Your task to perform on an android device: Show me popular videos on Youtube Image 0: 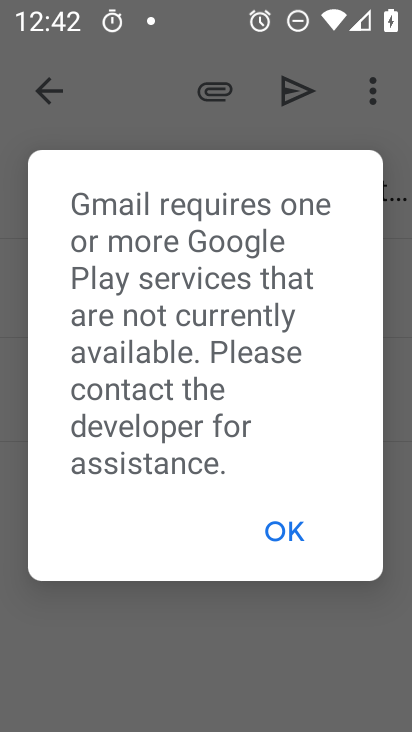
Step 0: press home button
Your task to perform on an android device: Show me popular videos on Youtube Image 1: 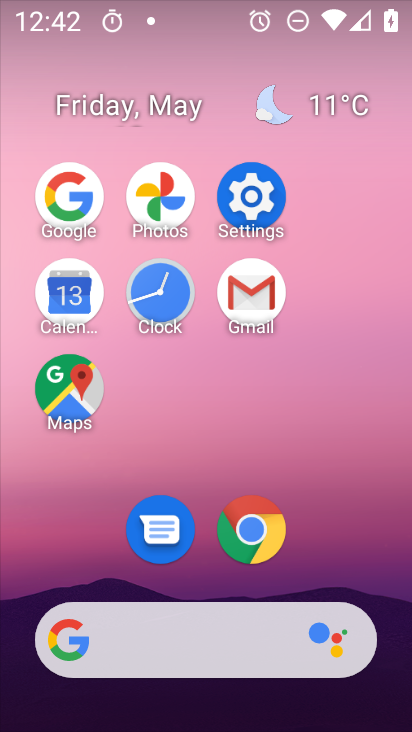
Step 1: drag from (222, 495) to (281, 177)
Your task to perform on an android device: Show me popular videos on Youtube Image 2: 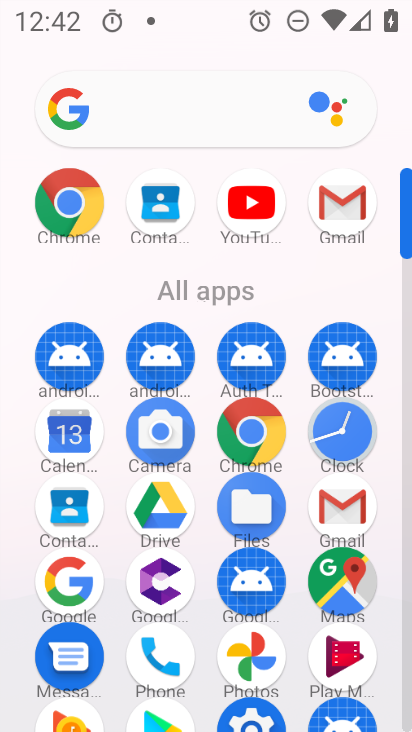
Step 2: click (270, 203)
Your task to perform on an android device: Show me popular videos on Youtube Image 3: 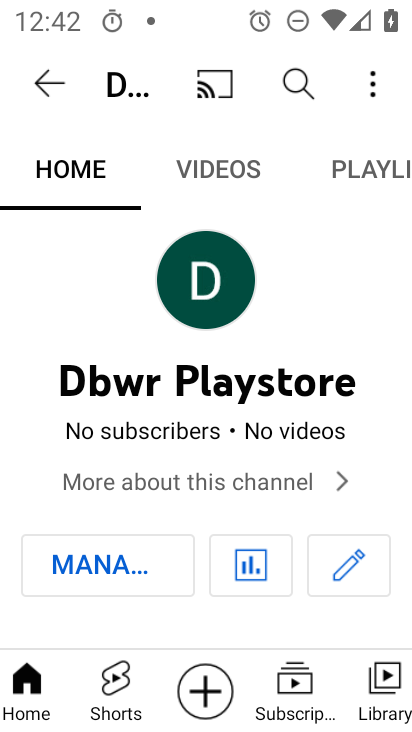
Step 3: press back button
Your task to perform on an android device: Show me popular videos on Youtube Image 4: 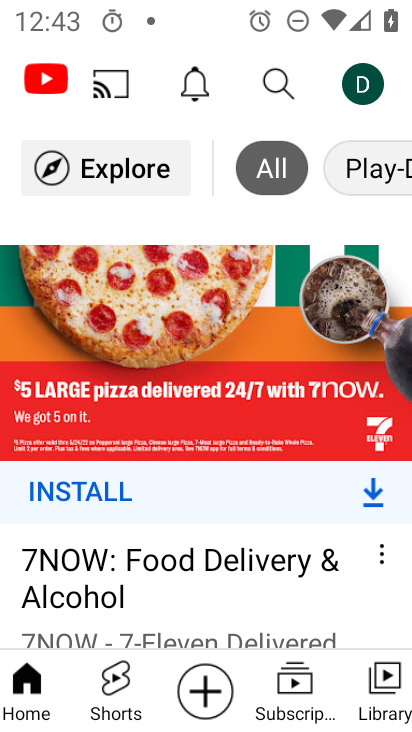
Step 4: press back button
Your task to perform on an android device: Show me popular videos on Youtube Image 5: 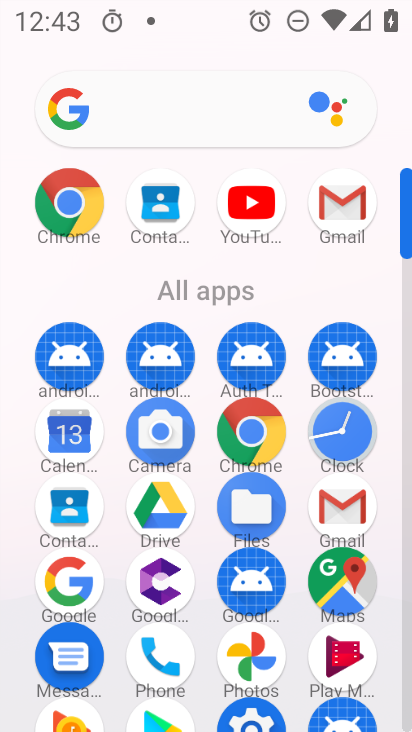
Step 5: click (282, 217)
Your task to perform on an android device: Show me popular videos on Youtube Image 6: 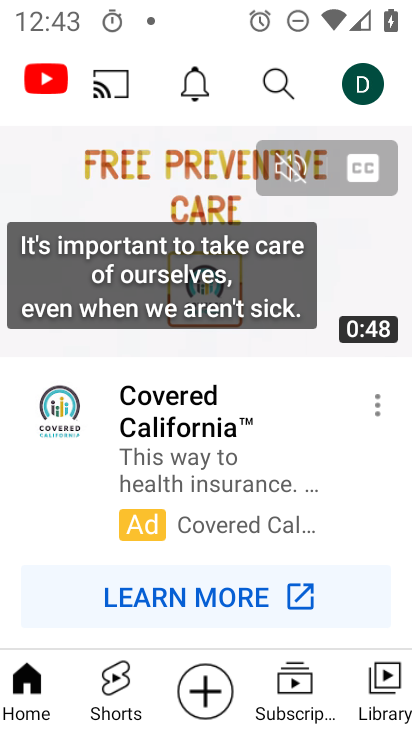
Step 6: task complete